Your task to perform on an android device: toggle priority inbox in the gmail app Image 0: 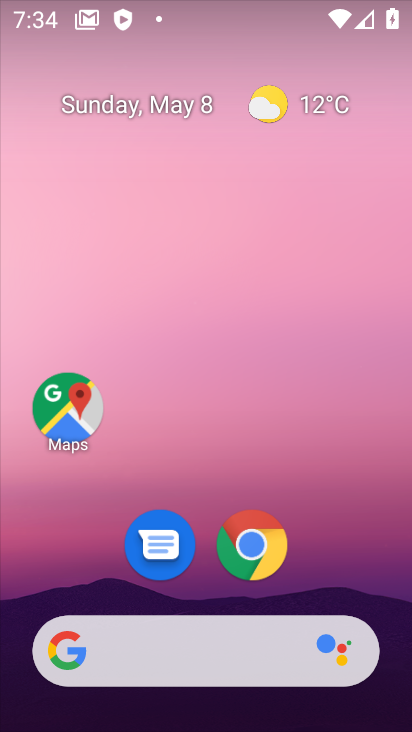
Step 0: drag from (203, 486) to (315, 13)
Your task to perform on an android device: toggle priority inbox in the gmail app Image 1: 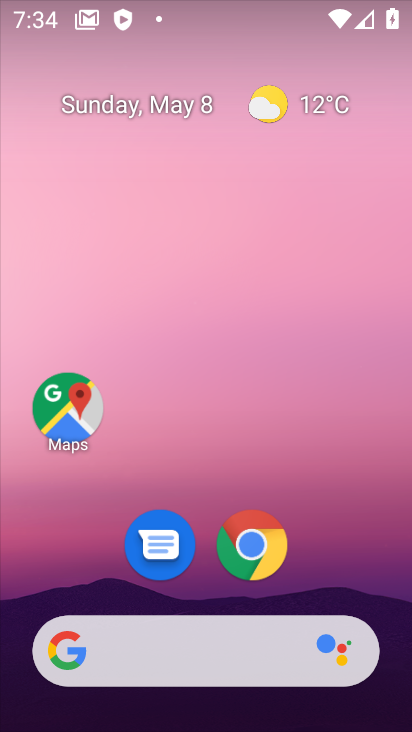
Step 1: drag from (192, 394) to (155, 136)
Your task to perform on an android device: toggle priority inbox in the gmail app Image 2: 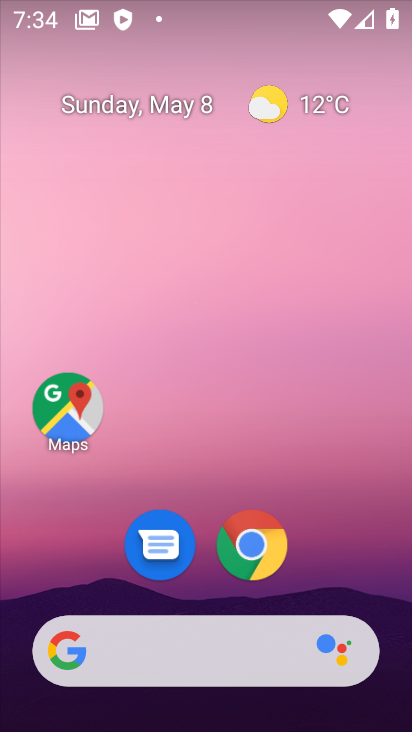
Step 2: drag from (214, 446) to (204, 71)
Your task to perform on an android device: toggle priority inbox in the gmail app Image 3: 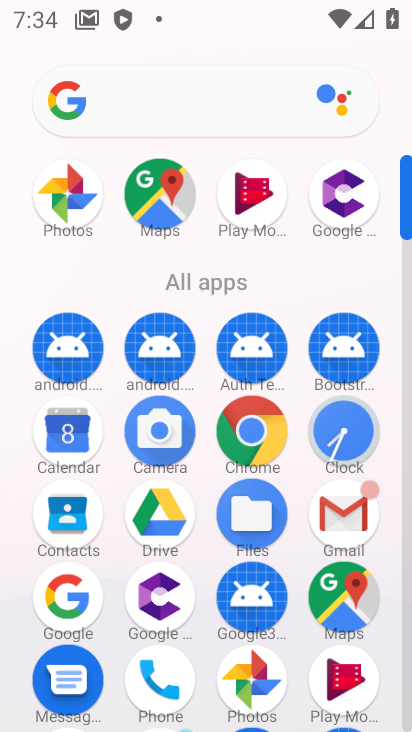
Step 3: click (334, 533)
Your task to perform on an android device: toggle priority inbox in the gmail app Image 4: 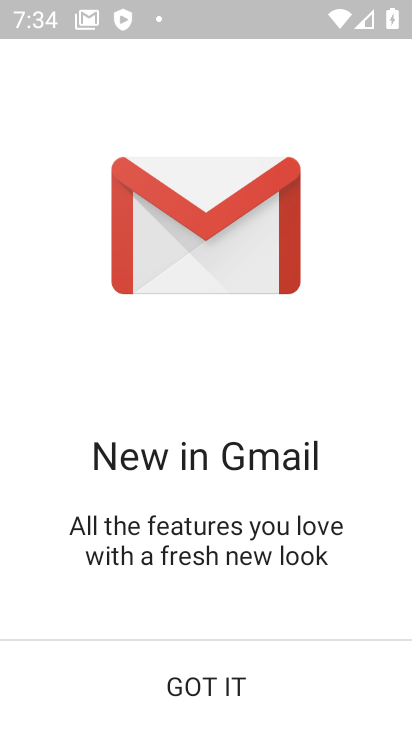
Step 4: click (163, 670)
Your task to perform on an android device: toggle priority inbox in the gmail app Image 5: 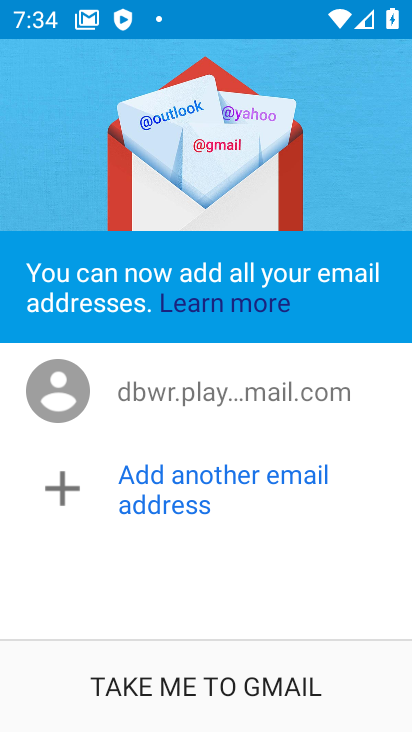
Step 5: click (163, 670)
Your task to perform on an android device: toggle priority inbox in the gmail app Image 6: 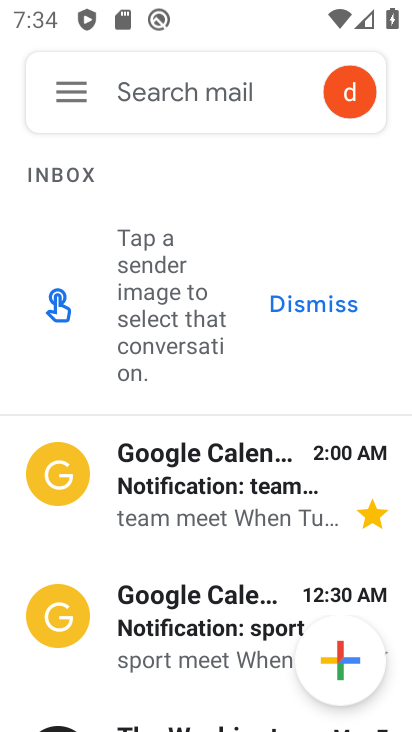
Step 6: click (68, 87)
Your task to perform on an android device: toggle priority inbox in the gmail app Image 7: 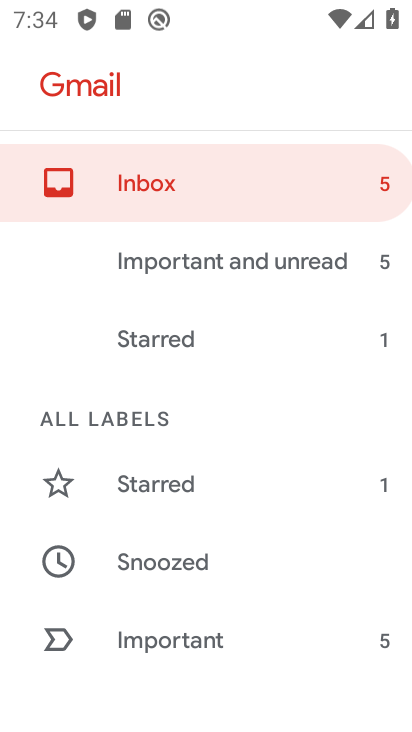
Step 7: drag from (209, 586) to (307, 107)
Your task to perform on an android device: toggle priority inbox in the gmail app Image 8: 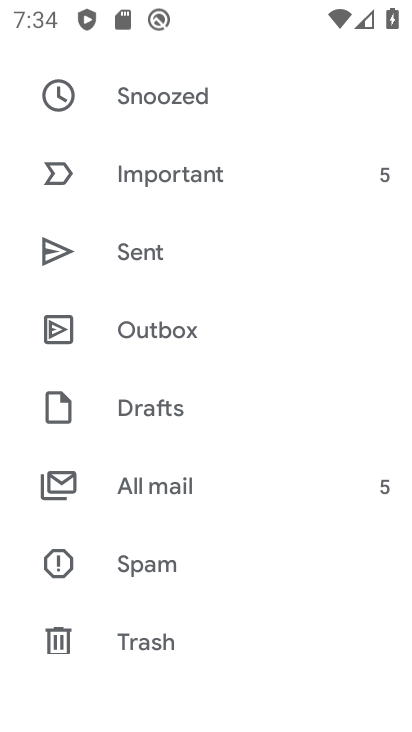
Step 8: drag from (65, 597) to (184, 65)
Your task to perform on an android device: toggle priority inbox in the gmail app Image 9: 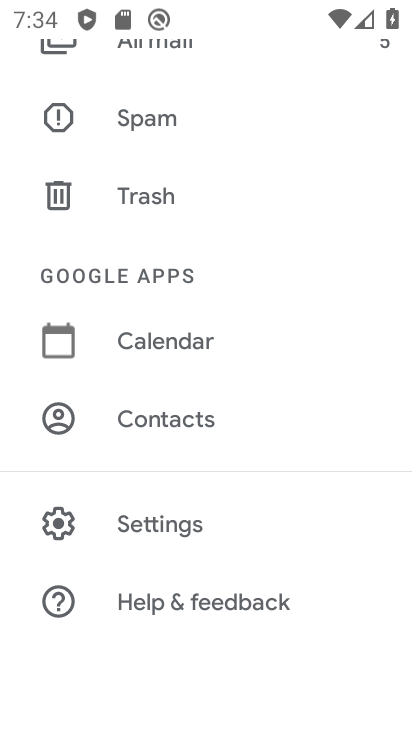
Step 9: click (148, 526)
Your task to perform on an android device: toggle priority inbox in the gmail app Image 10: 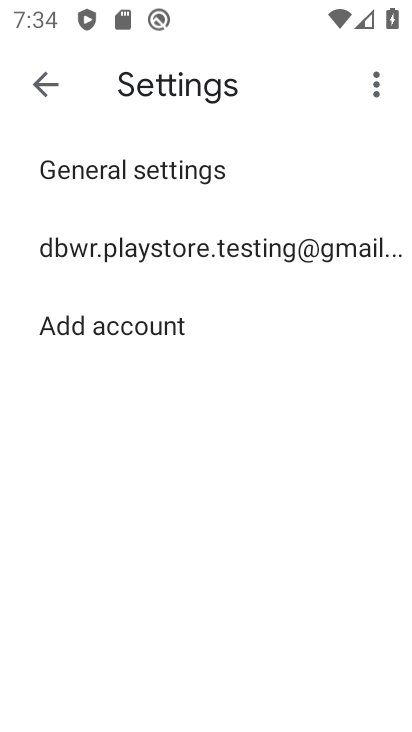
Step 10: click (253, 266)
Your task to perform on an android device: toggle priority inbox in the gmail app Image 11: 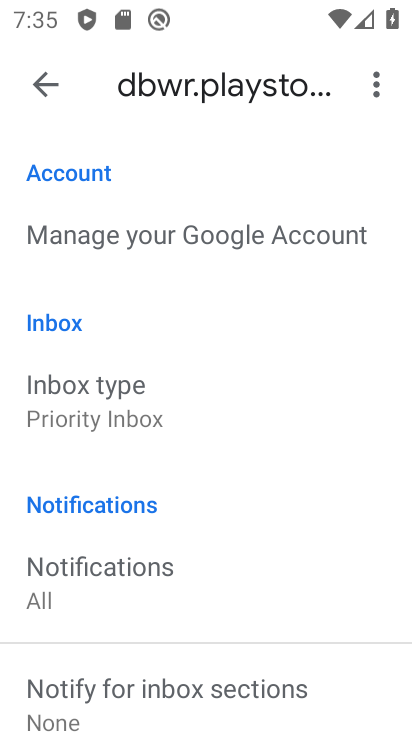
Step 11: click (156, 443)
Your task to perform on an android device: toggle priority inbox in the gmail app Image 12: 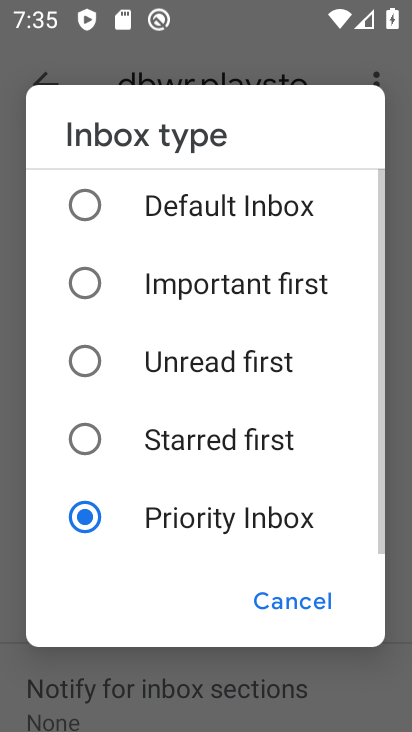
Step 12: click (156, 443)
Your task to perform on an android device: toggle priority inbox in the gmail app Image 13: 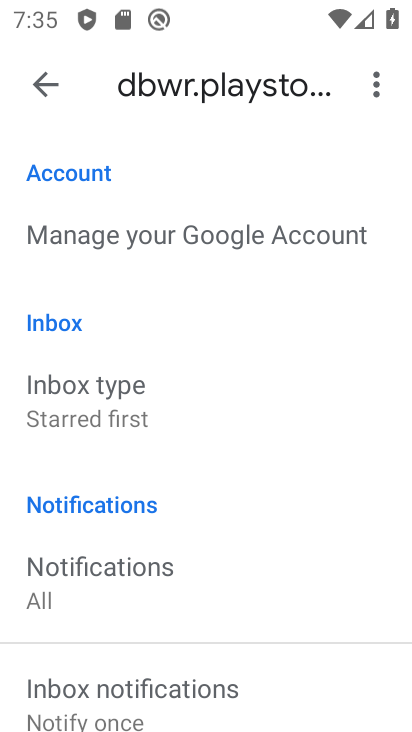
Step 13: task complete